Your task to perform on an android device: clear history in the chrome app Image 0: 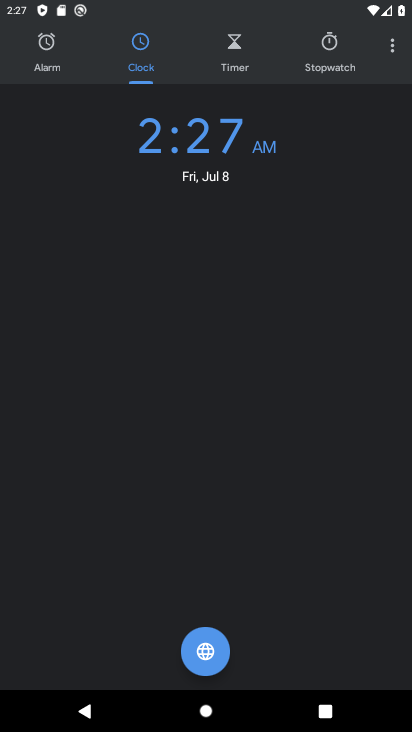
Step 0: press home button
Your task to perform on an android device: clear history in the chrome app Image 1: 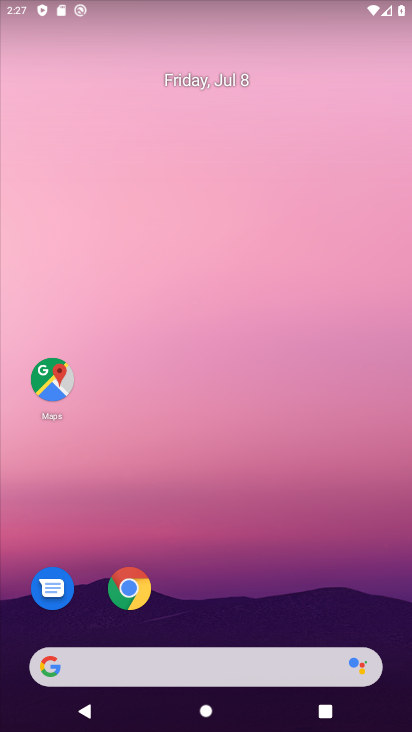
Step 1: click (127, 591)
Your task to perform on an android device: clear history in the chrome app Image 2: 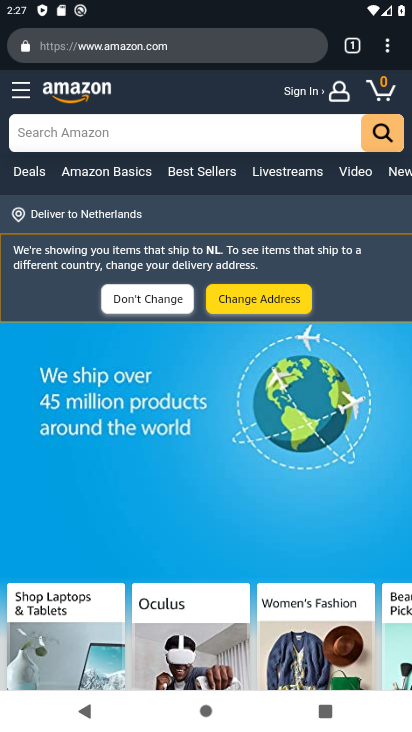
Step 2: click (391, 57)
Your task to perform on an android device: clear history in the chrome app Image 3: 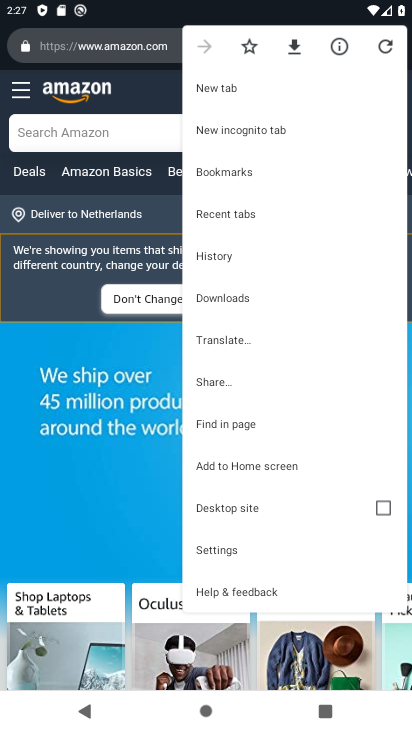
Step 3: click (220, 252)
Your task to perform on an android device: clear history in the chrome app Image 4: 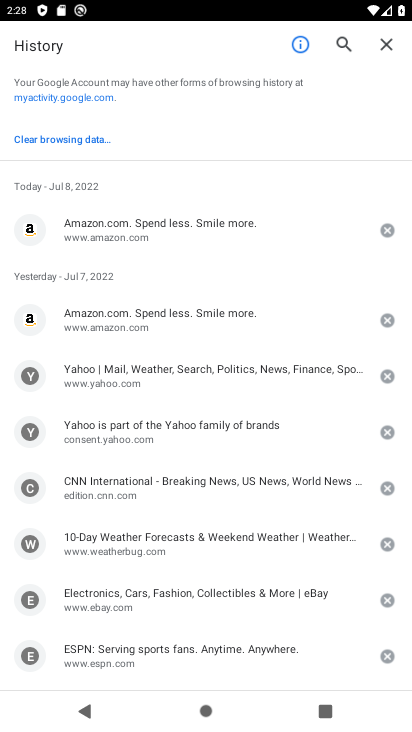
Step 4: click (56, 142)
Your task to perform on an android device: clear history in the chrome app Image 5: 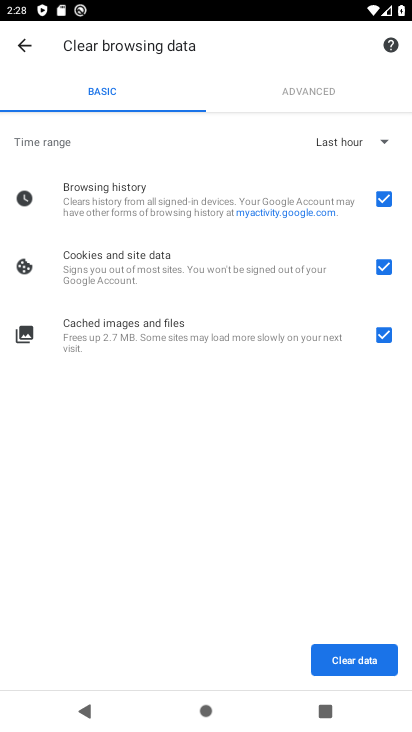
Step 5: click (365, 667)
Your task to perform on an android device: clear history in the chrome app Image 6: 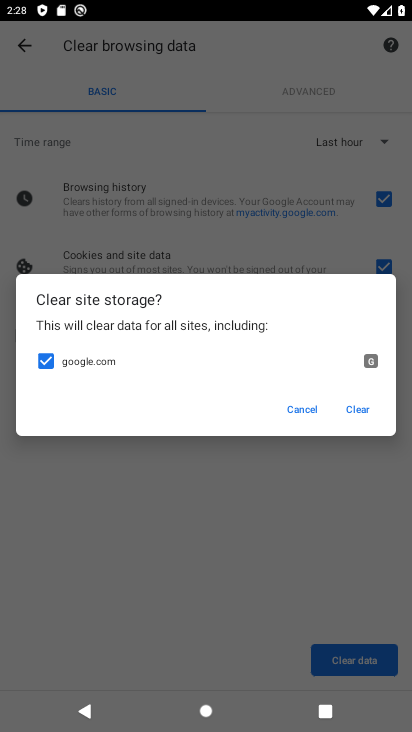
Step 6: click (353, 408)
Your task to perform on an android device: clear history in the chrome app Image 7: 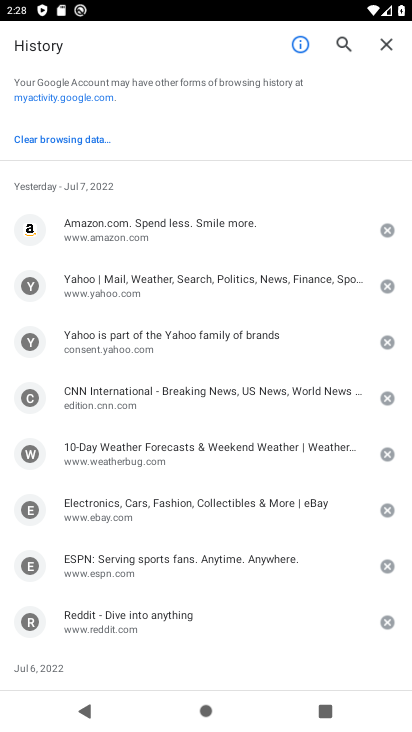
Step 7: task complete